Your task to perform on an android device: check the backup settings in the google photos Image 0: 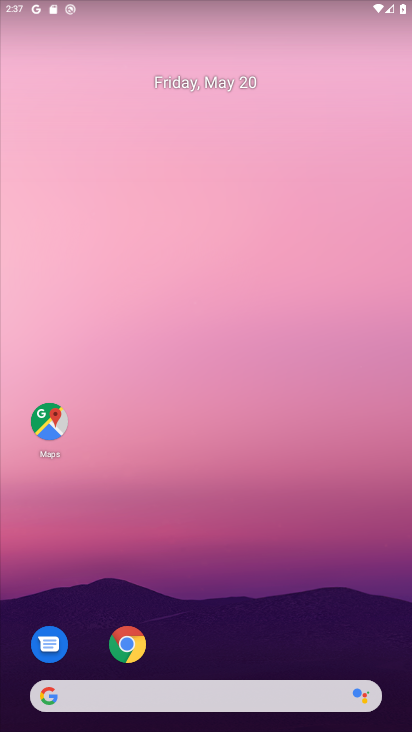
Step 0: drag from (242, 625) to (245, 244)
Your task to perform on an android device: check the backup settings in the google photos Image 1: 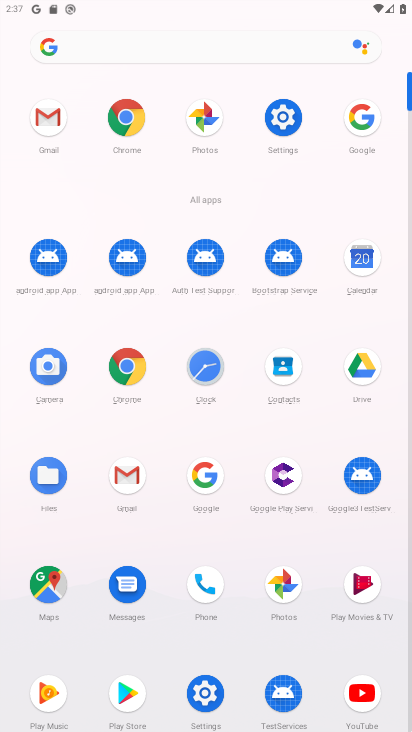
Step 1: click (205, 129)
Your task to perform on an android device: check the backup settings in the google photos Image 2: 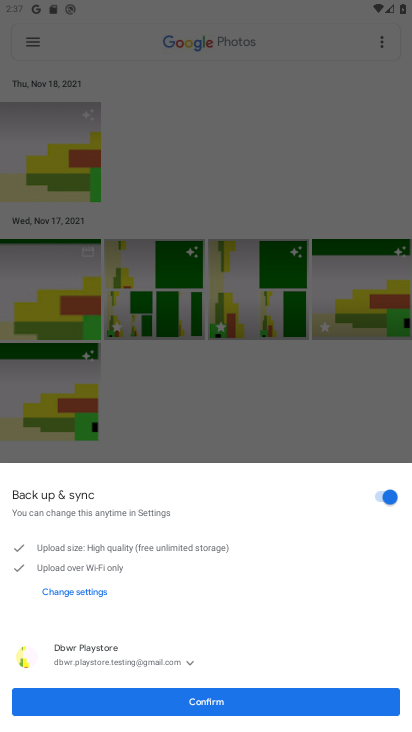
Step 2: click (190, 696)
Your task to perform on an android device: check the backup settings in the google photos Image 3: 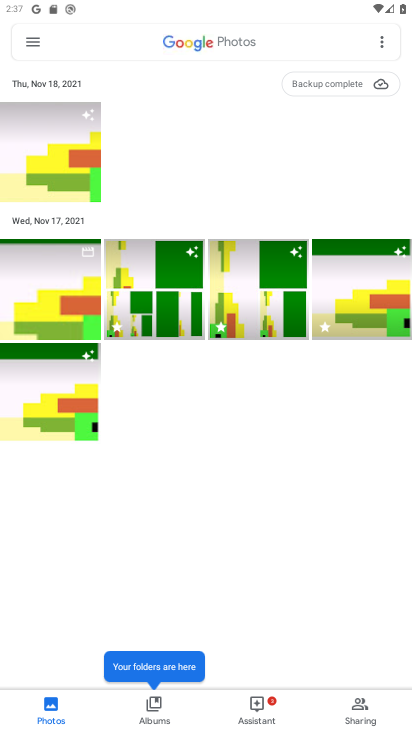
Step 3: press back button
Your task to perform on an android device: check the backup settings in the google photos Image 4: 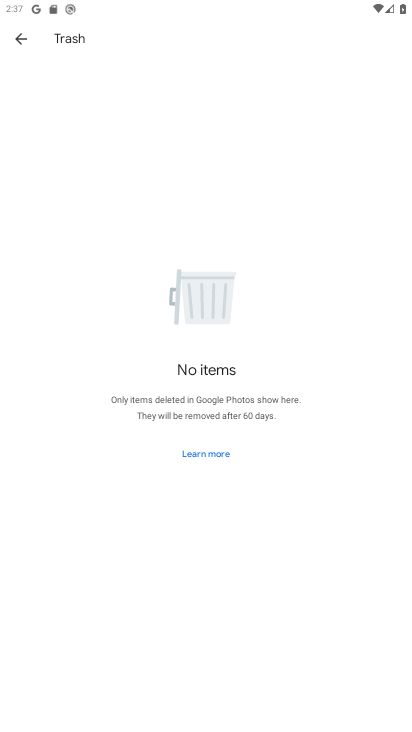
Step 4: press back button
Your task to perform on an android device: check the backup settings in the google photos Image 5: 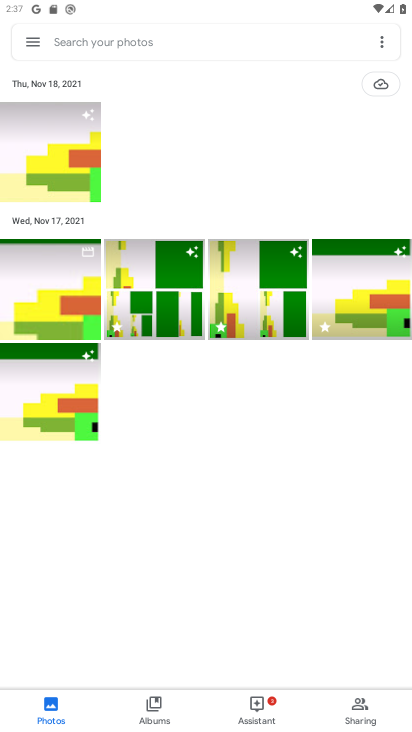
Step 5: click (40, 35)
Your task to perform on an android device: check the backup settings in the google photos Image 6: 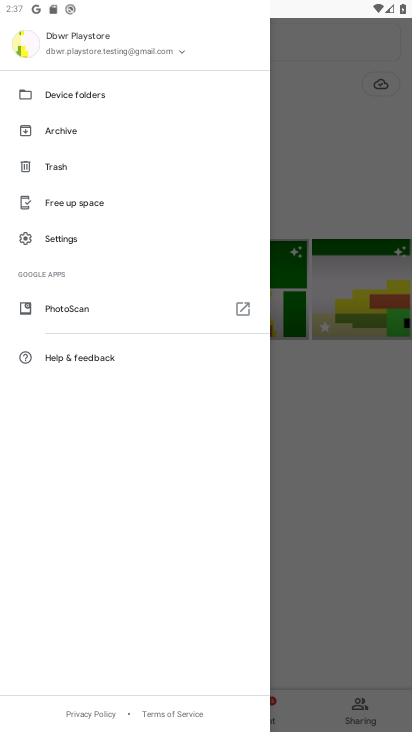
Step 6: click (96, 238)
Your task to perform on an android device: check the backup settings in the google photos Image 7: 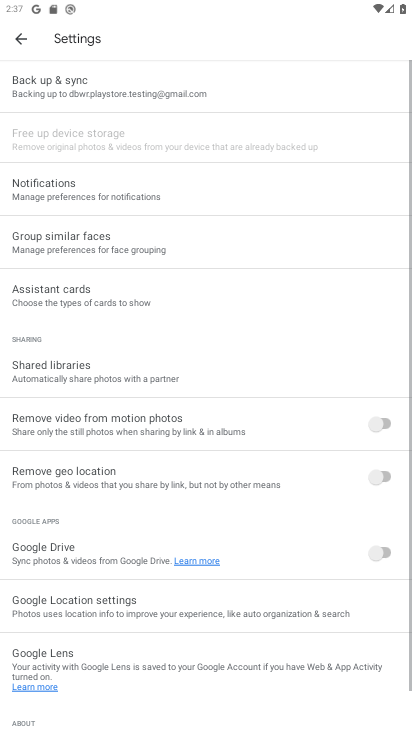
Step 7: click (143, 83)
Your task to perform on an android device: check the backup settings in the google photos Image 8: 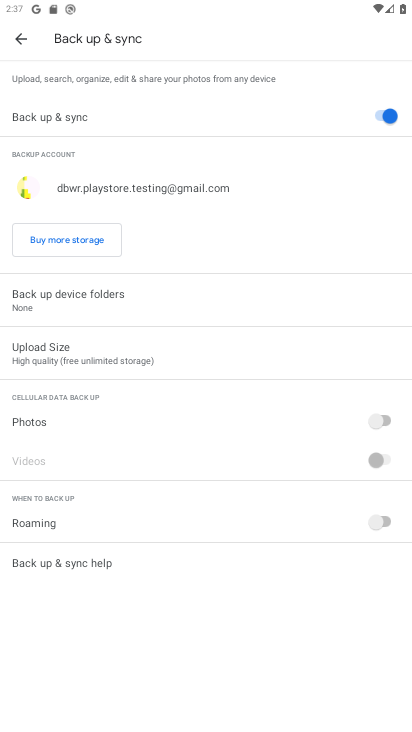
Step 8: task complete